Your task to perform on an android device: Show me popular videos on Youtube Image 0: 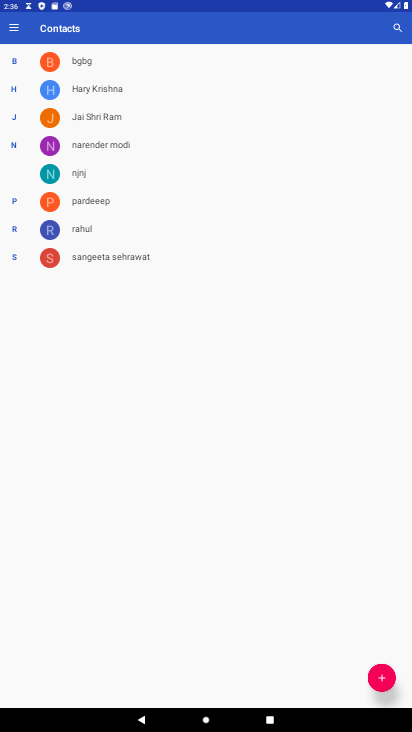
Step 0: press home button
Your task to perform on an android device: Show me popular videos on Youtube Image 1: 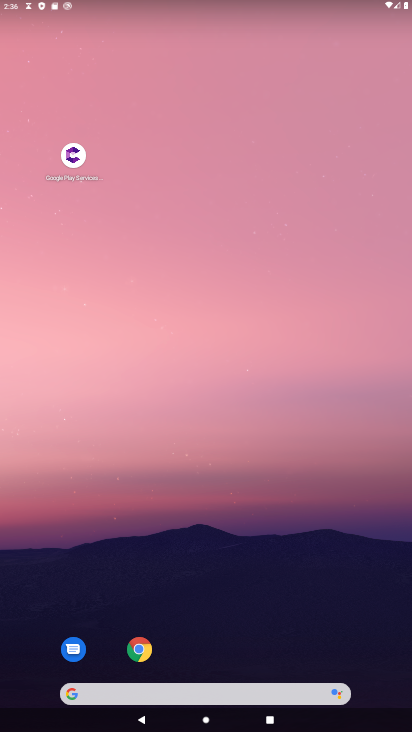
Step 1: drag from (191, 669) to (231, 7)
Your task to perform on an android device: Show me popular videos on Youtube Image 2: 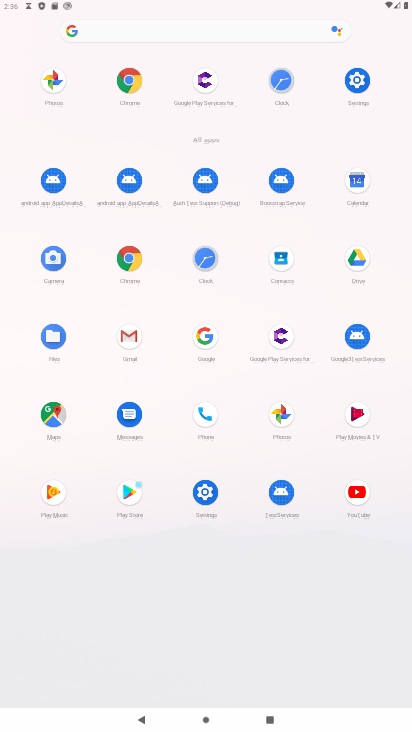
Step 2: click (358, 498)
Your task to perform on an android device: Show me popular videos on Youtube Image 3: 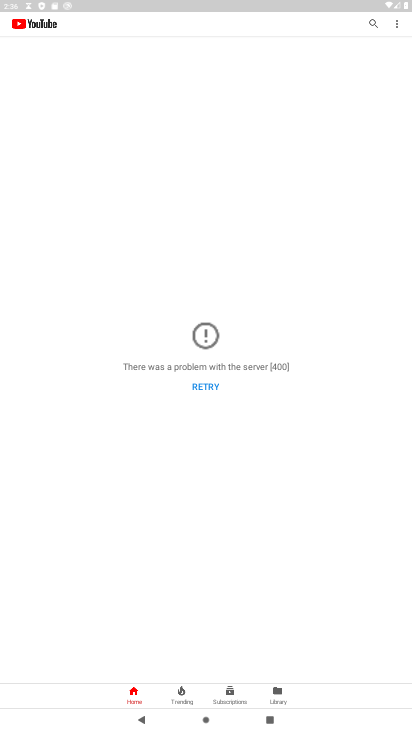
Step 3: click (205, 387)
Your task to perform on an android device: Show me popular videos on Youtube Image 4: 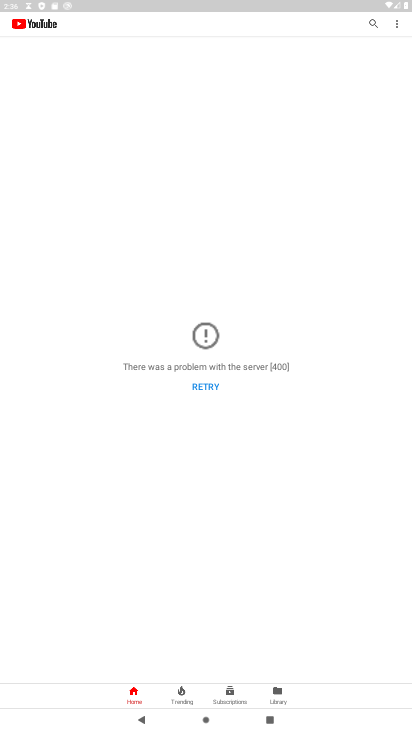
Step 4: click (208, 386)
Your task to perform on an android device: Show me popular videos on Youtube Image 5: 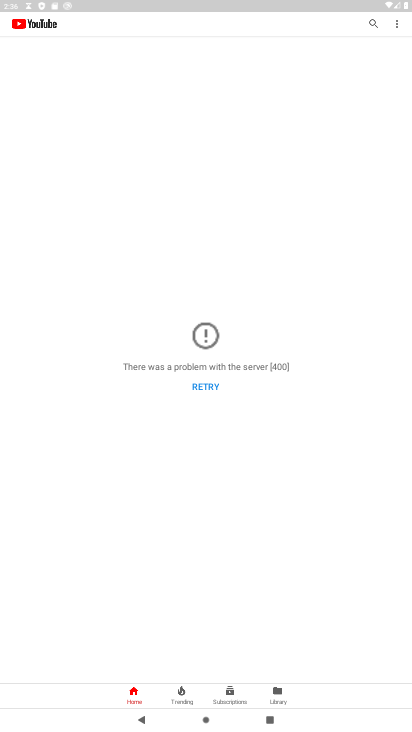
Step 5: click (208, 386)
Your task to perform on an android device: Show me popular videos on Youtube Image 6: 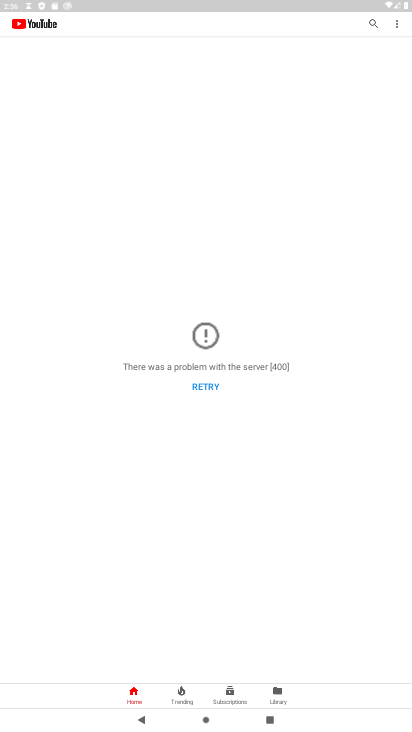
Step 6: click (208, 386)
Your task to perform on an android device: Show me popular videos on Youtube Image 7: 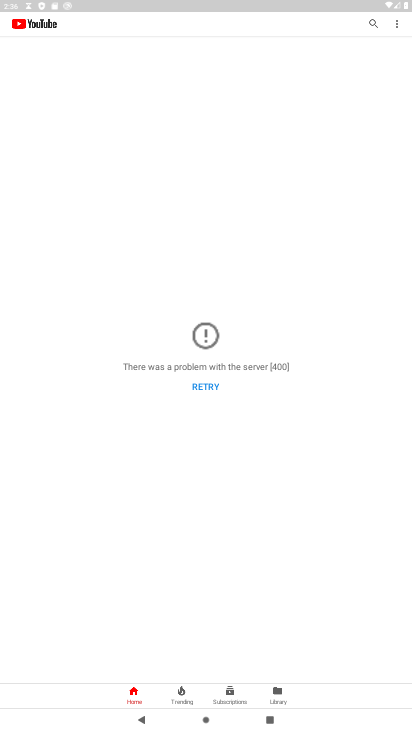
Step 7: click (208, 386)
Your task to perform on an android device: Show me popular videos on Youtube Image 8: 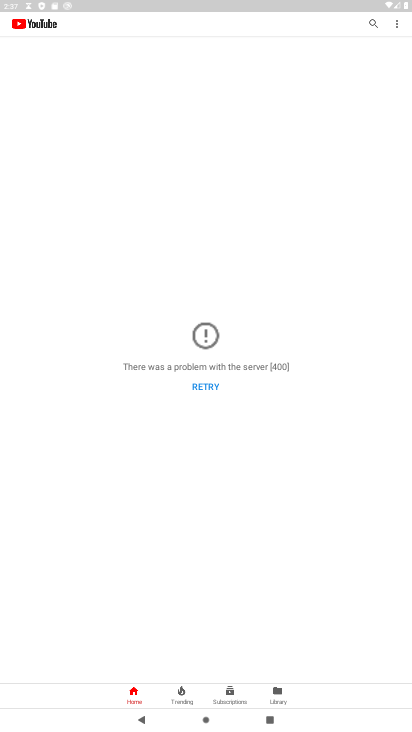
Step 8: task complete